Your task to perform on an android device: Search for the best vacuum on Walmart Image 0: 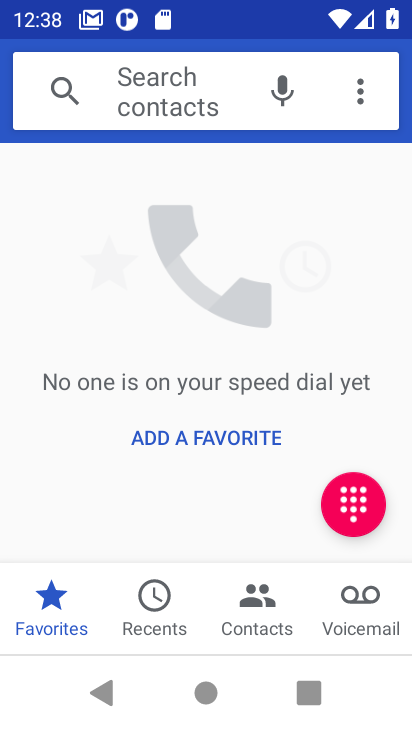
Step 0: press home button
Your task to perform on an android device: Search for the best vacuum on Walmart Image 1: 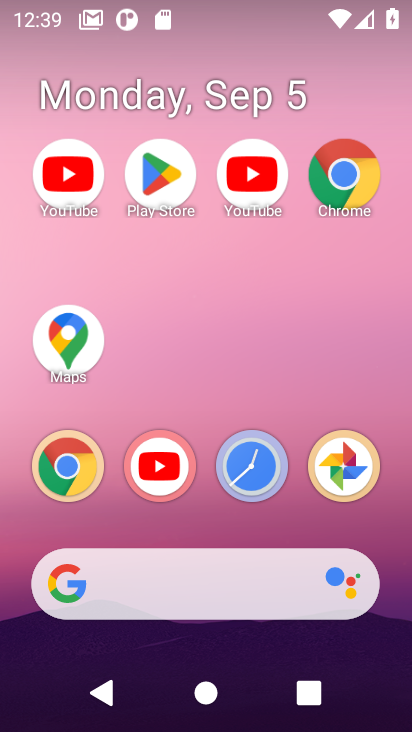
Step 1: click (340, 184)
Your task to perform on an android device: Search for the best vacuum on Walmart Image 2: 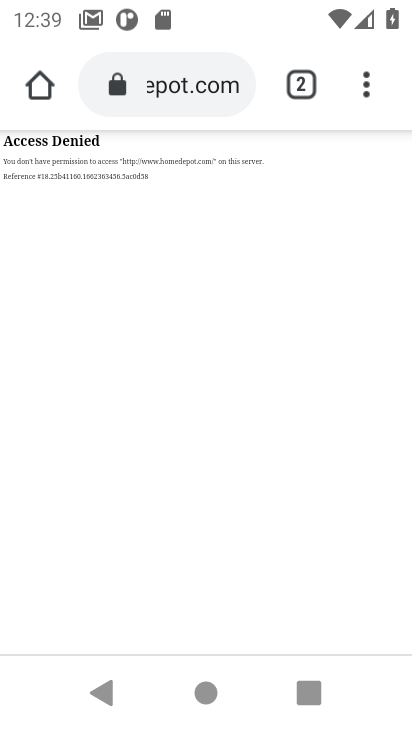
Step 2: click (187, 81)
Your task to perform on an android device: Search for the best vacuum on Walmart Image 3: 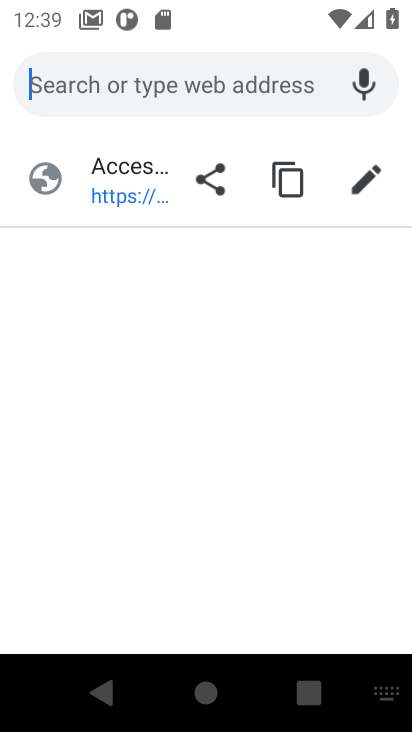
Step 3: type "Walmart"
Your task to perform on an android device: Search for the best vacuum on Walmart Image 4: 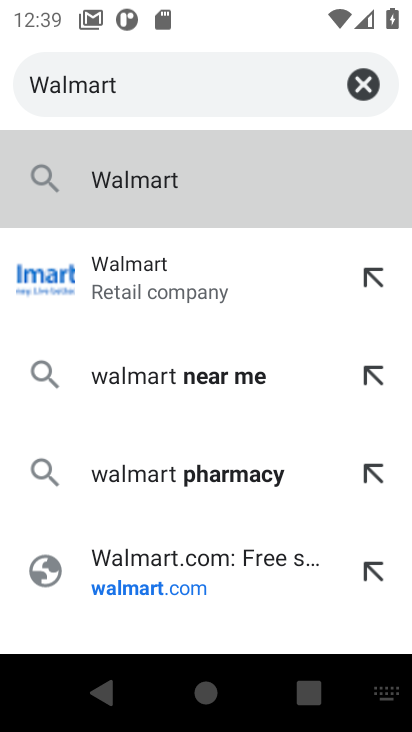
Step 4: click (142, 176)
Your task to perform on an android device: Search for the best vacuum on Walmart Image 5: 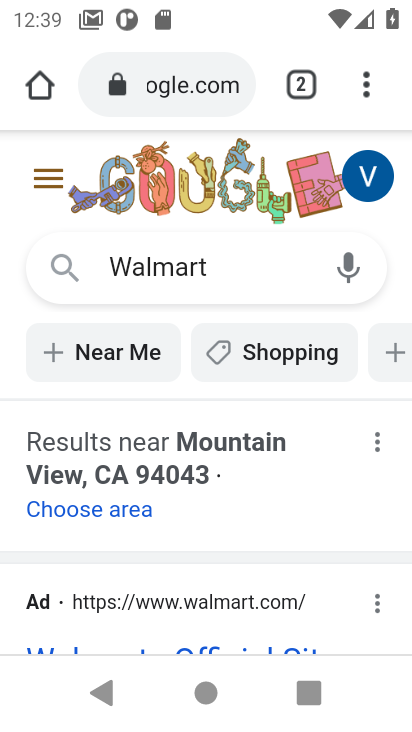
Step 5: drag from (289, 442) to (330, 188)
Your task to perform on an android device: Search for the best vacuum on Walmart Image 6: 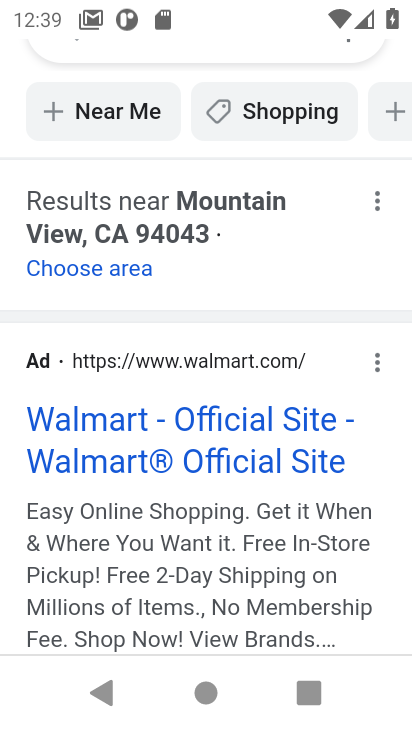
Step 6: click (288, 424)
Your task to perform on an android device: Search for the best vacuum on Walmart Image 7: 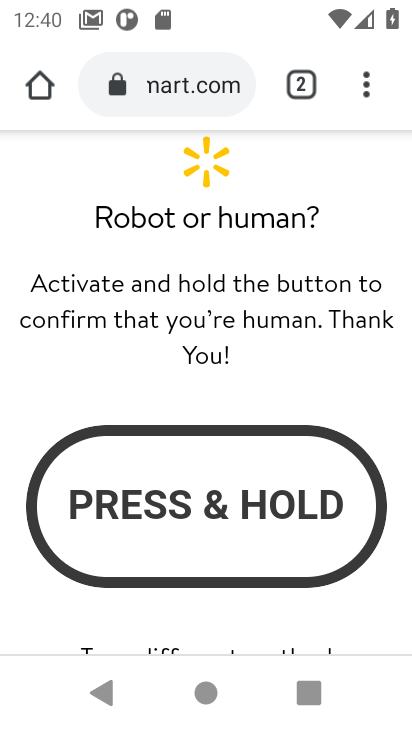
Step 7: task complete